Your task to perform on an android device: stop showing notifications on the lock screen Image 0: 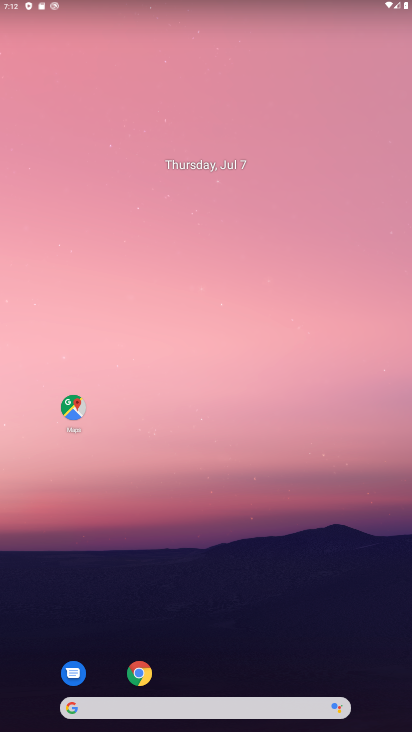
Step 0: drag from (221, 588) to (180, 50)
Your task to perform on an android device: stop showing notifications on the lock screen Image 1: 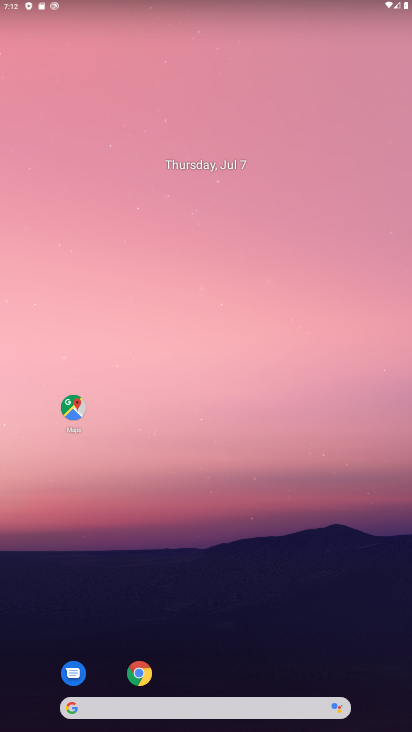
Step 1: drag from (202, 545) to (208, 73)
Your task to perform on an android device: stop showing notifications on the lock screen Image 2: 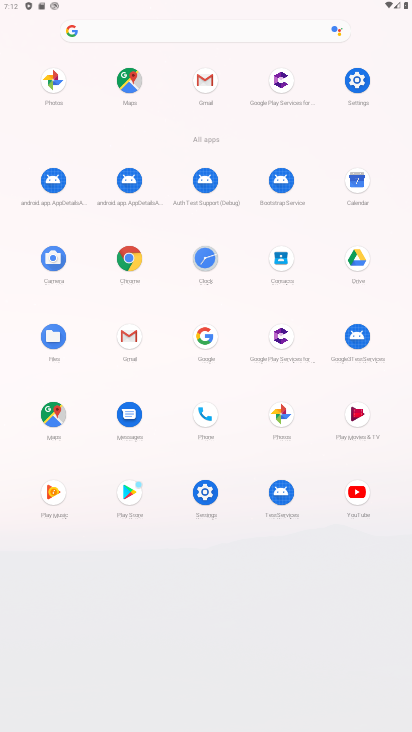
Step 2: click (360, 80)
Your task to perform on an android device: stop showing notifications on the lock screen Image 3: 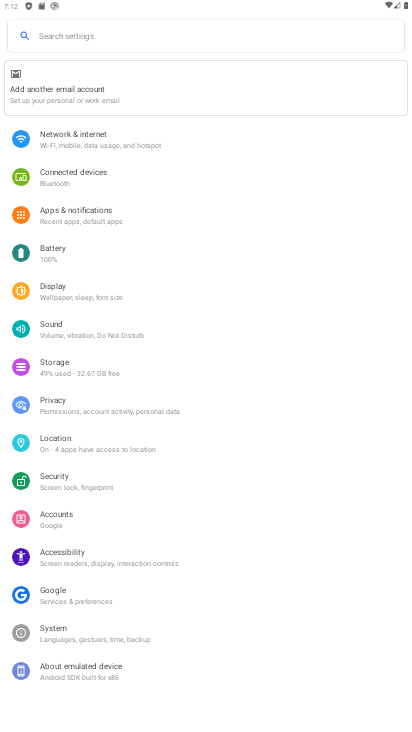
Step 3: click (83, 213)
Your task to perform on an android device: stop showing notifications on the lock screen Image 4: 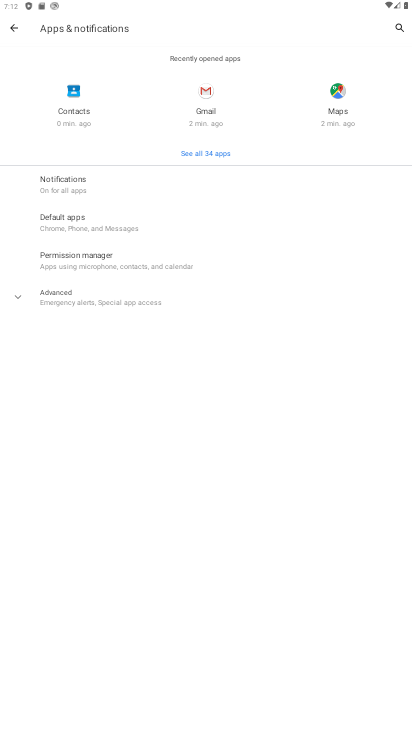
Step 4: click (75, 174)
Your task to perform on an android device: stop showing notifications on the lock screen Image 5: 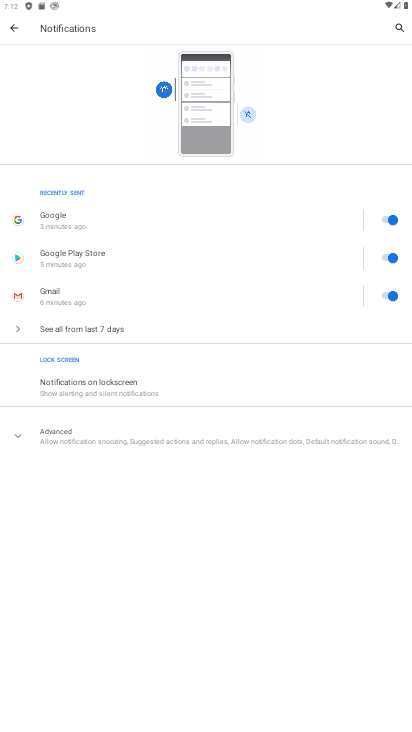
Step 5: click (100, 383)
Your task to perform on an android device: stop showing notifications on the lock screen Image 6: 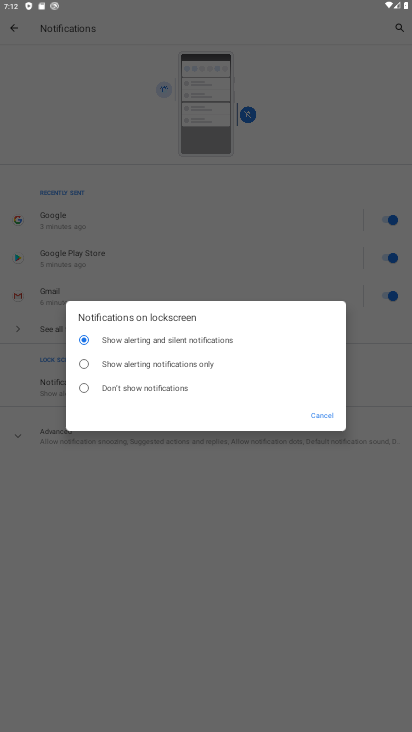
Step 6: click (87, 389)
Your task to perform on an android device: stop showing notifications on the lock screen Image 7: 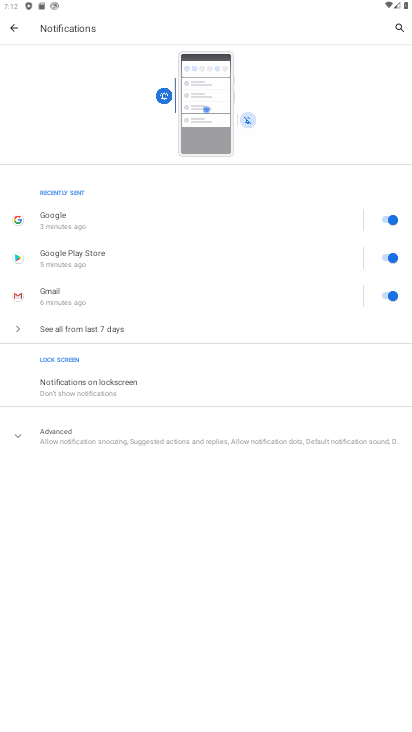
Step 7: task complete